Your task to perform on an android device: add a contact Image 0: 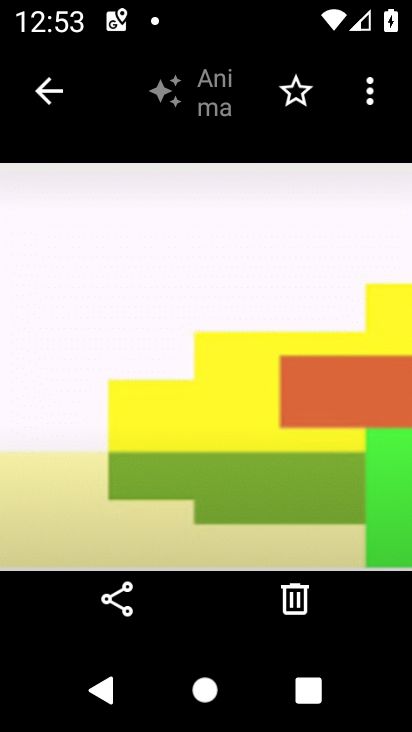
Step 0: press home button
Your task to perform on an android device: add a contact Image 1: 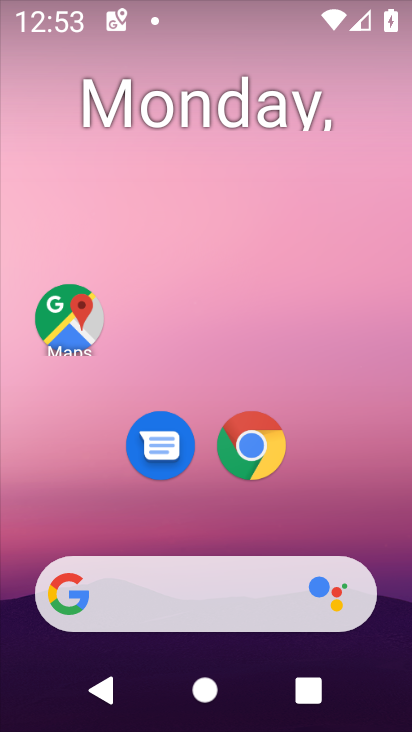
Step 1: drag from (342, 490) to (275, 27)
Your task to perform on an android device: add a contact Image 2: 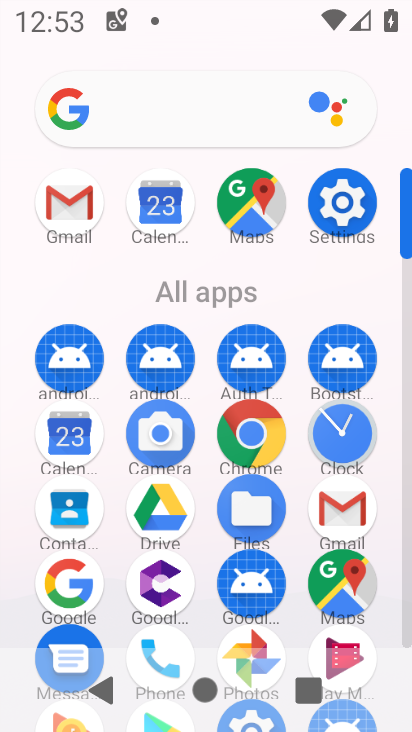
Step 2: drag from (287, 575) to (327, 358)
Your task to perform on an android device: add a contact Image 3: 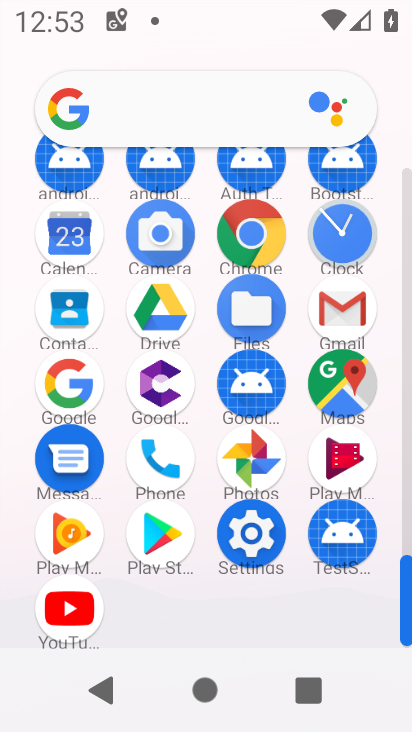
Step 3: click (71, 303)
Your task to perform on an android device: add a contact Image 4: 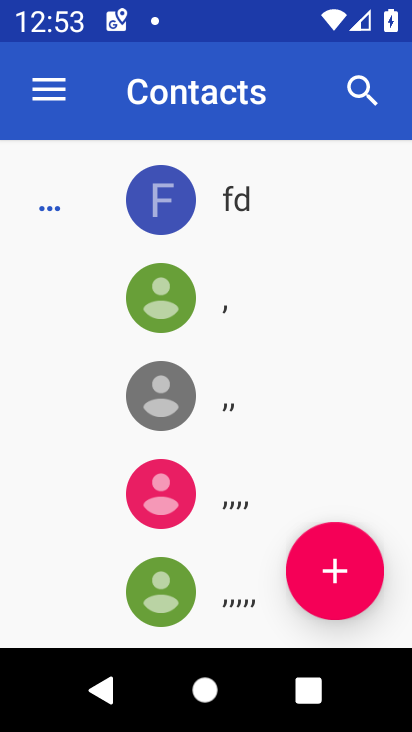
Step 4: click (336, 561)
Your task to perform on an android device: add a contact Image 5: 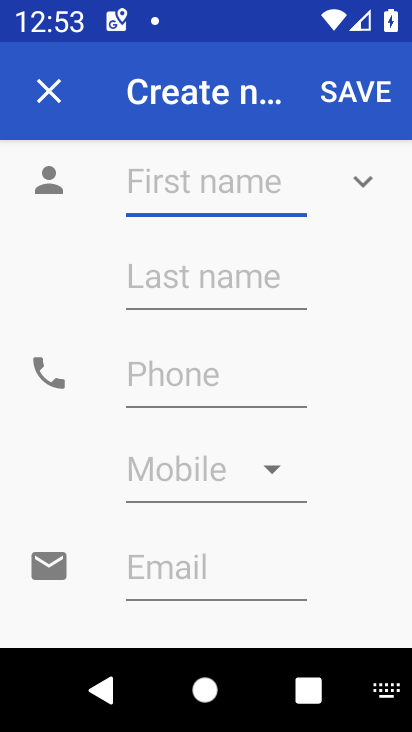
Step 5: click (258, 167)
Your task to perform on an android device: add a contact Image 6: 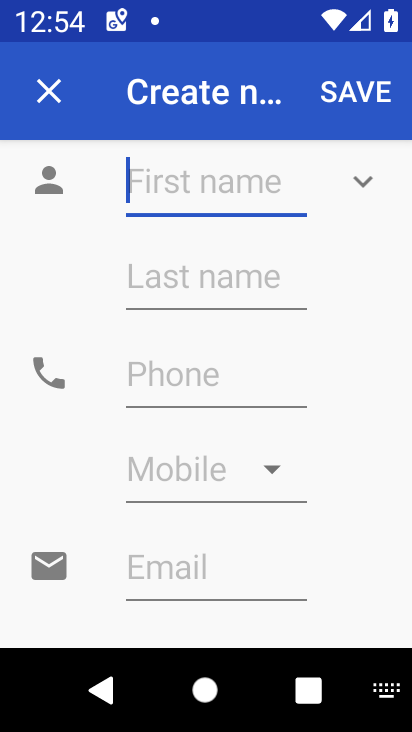
Step 6: type "Supindar"
Your task to perform on an android device: add a contact Image 7: 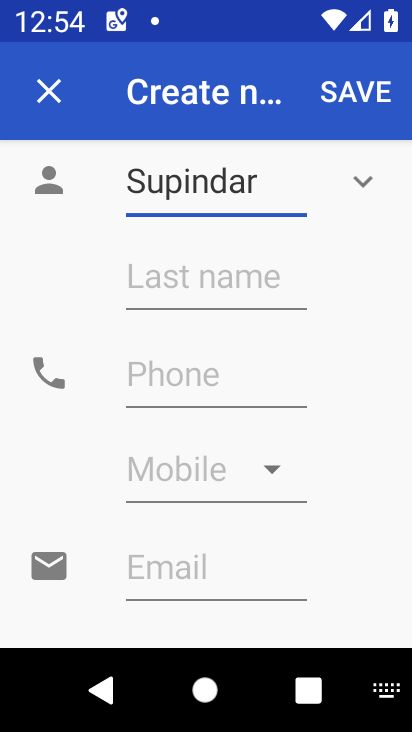
Step 7: click (283, 285)
Your task to perform on an android device: add a contact Image 8: 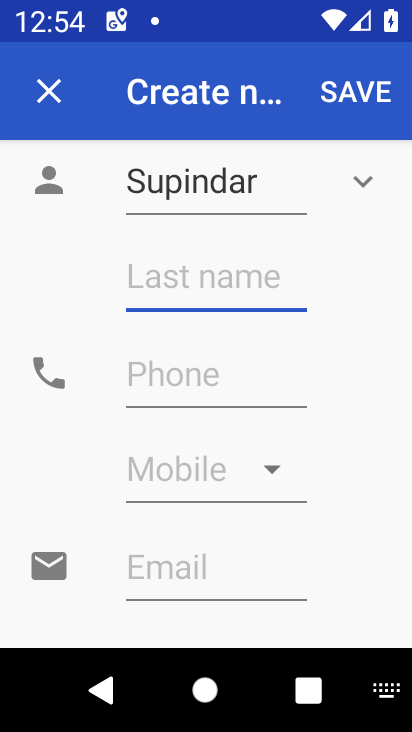
Step 8: type "Tohra"
Your task to perform on an android device: add a contact Image 9: 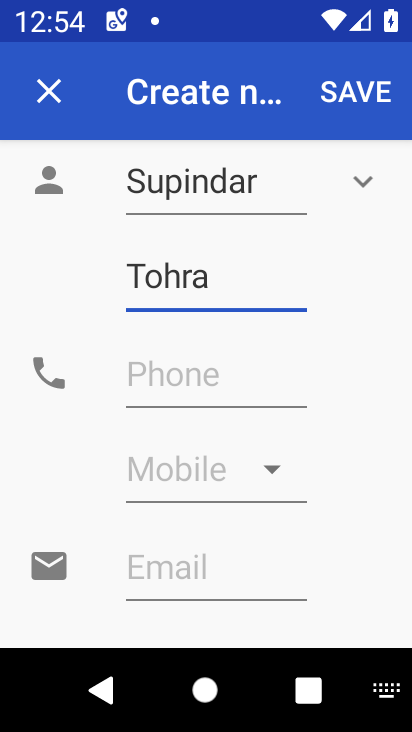
Step 9: click (185, 366)
Your task to perform on an android device: add a contact Image 10: 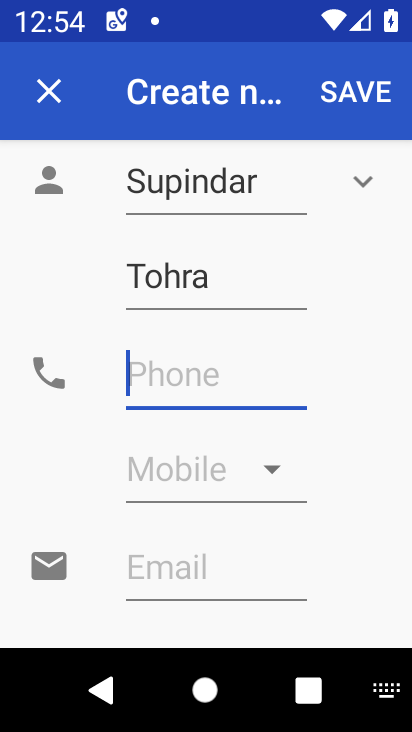
Step 10: type "098765432123"
Your task to perform on an android device: add a contact Image 11: 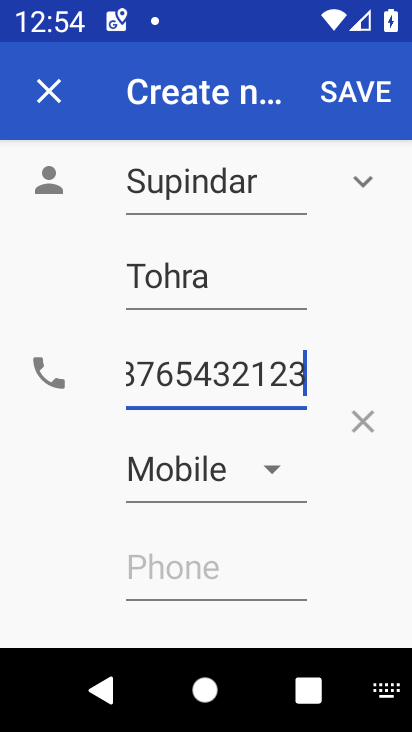
Step 11: click (369, 89)
Your task to perform on an android device: add a contact Image 12: 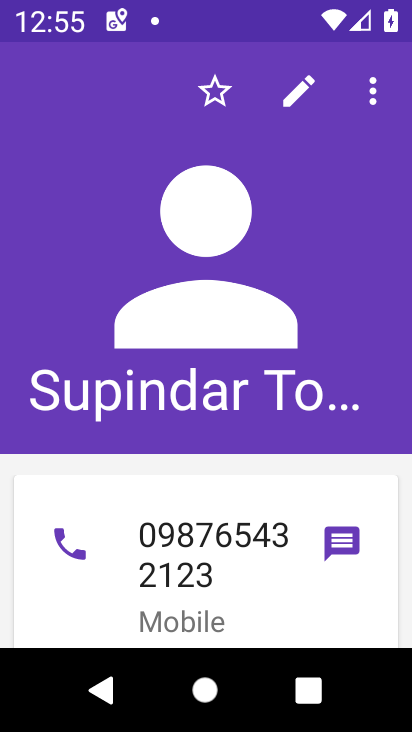
Step 12: task complete